Your task to perform on an android device: clear history in the chrome app Image 0: 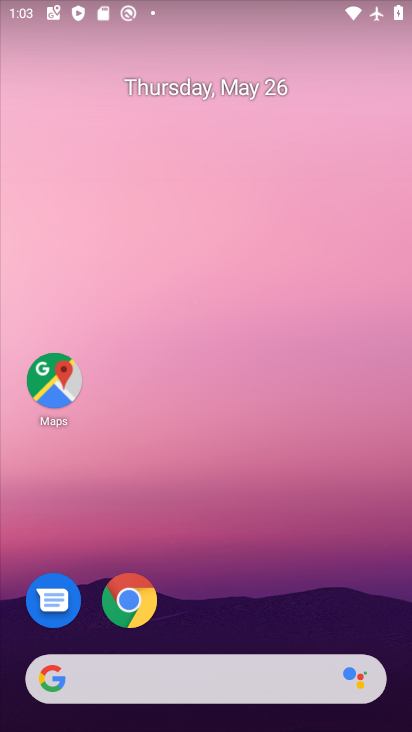
Step 0: drag from (253, 626) to (270, 155)
Your task to perform on an android device: clear history in the chrome app Image 1: 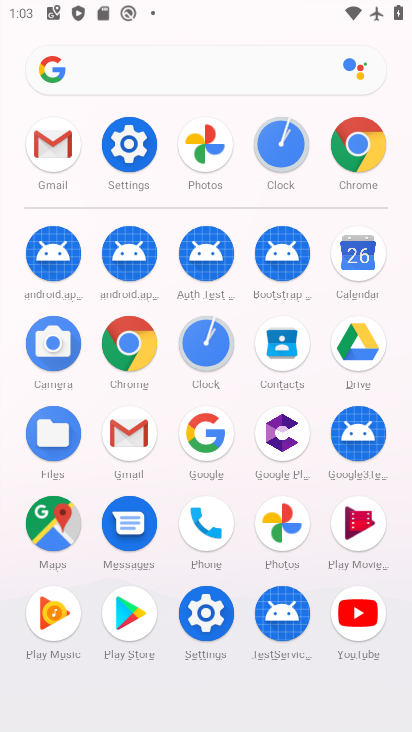
Step 1: click (126, 346)
Your task to perform on an android device: clear history in the chrome app Image 2: 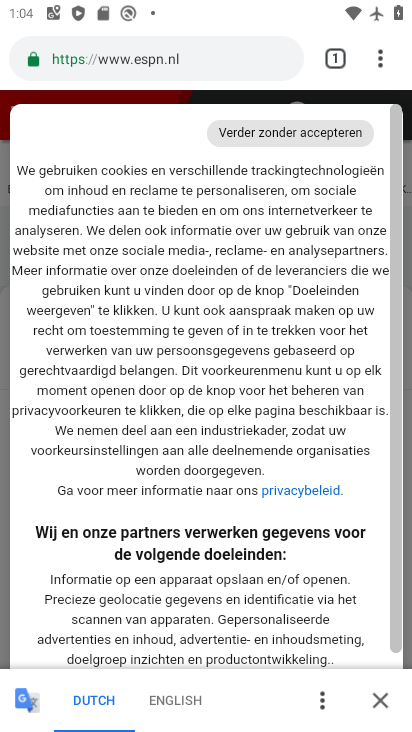
Step 2: drag from (389, 52) to (188, 234)
Your task to perform on an android device: clear history in the chrome app Image 3: 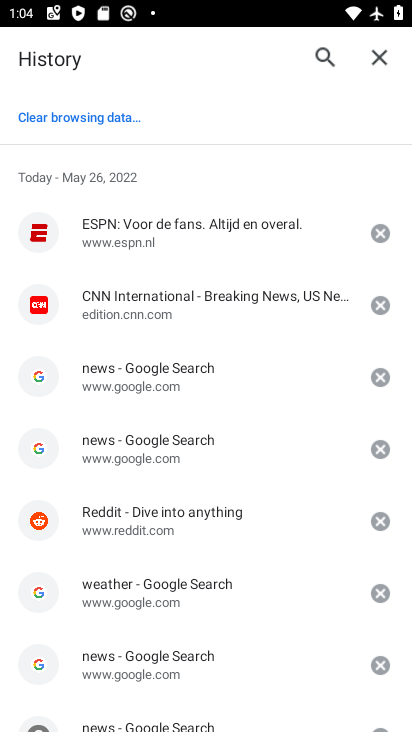
Step 3: click (65, 116)
Your task to perform on an android device: clear history in the chrome app Image 4: 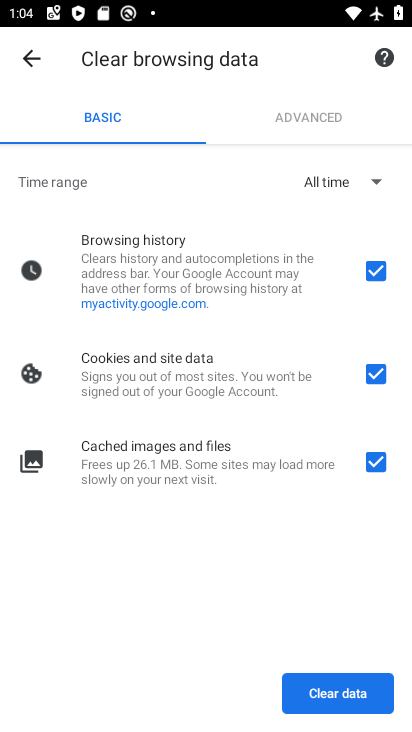
Step 4: click (364, 701)
Your task to perform on an android device: clear history in the chrome app Image 5: 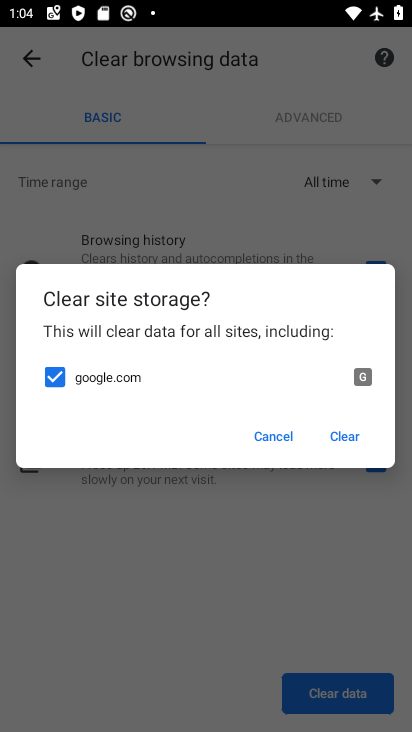
Step 5: click (337, 440)
Your task to perform on an android device: clear history in the chrome app Image 6: 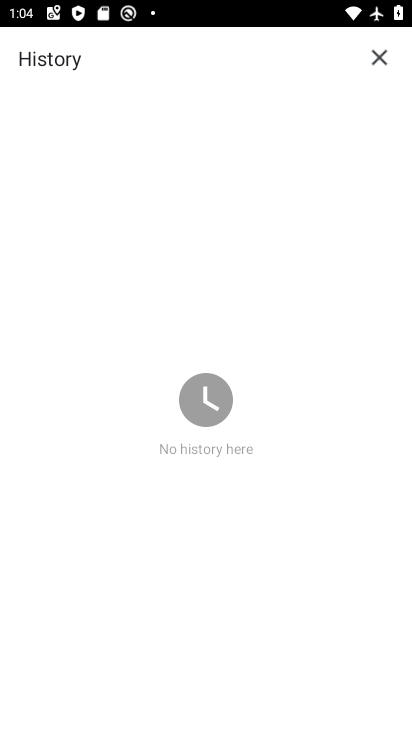
Step 6: task complete